Your task to perform on an android device: turn smart compose on in the gmail app Image 0: 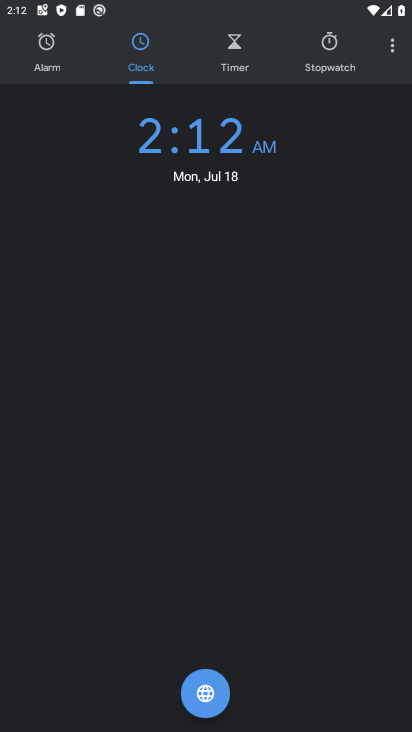
Step 0: press home button
Your task to perform on an android device: turn smart compose on in the gmail app Image 1: 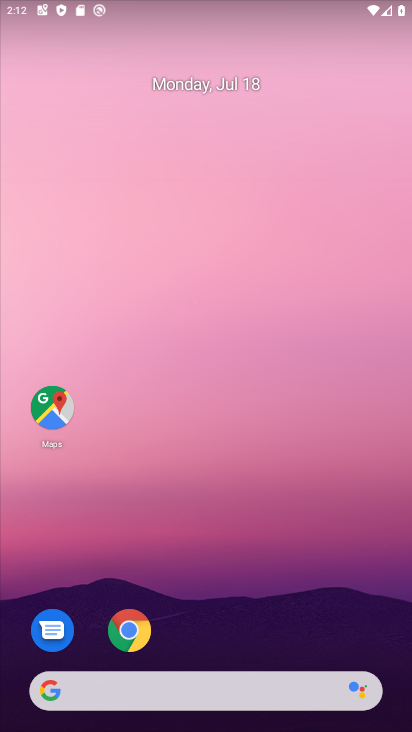
Step 1: drag from (367, 618) to (346, 164)
Your task to perform on an android device: turn smart compose on in the gmail app Image 2: 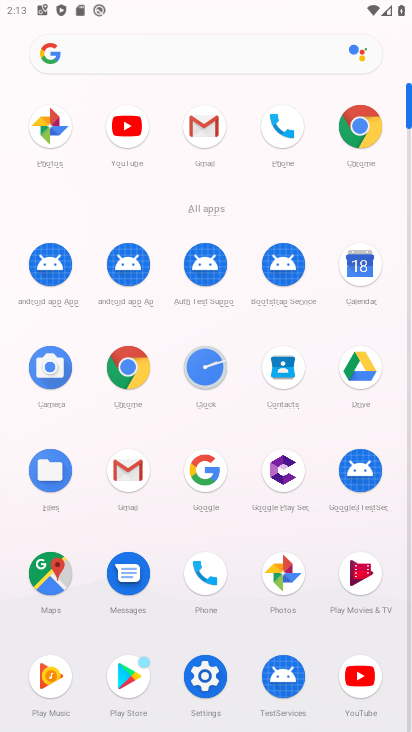
Step 2: click (124, 466)
Your task to perform on an android device: turn smart compose on in the gmail app Image 3: 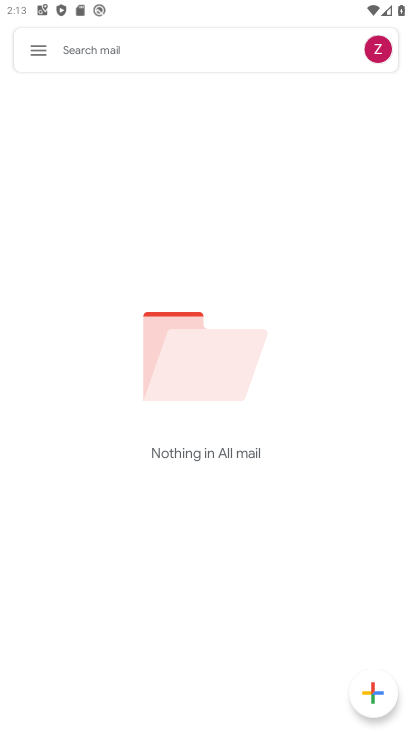
Step 3: click (35, 40)
Your task to perform on an android device: turn smart compose on in the gmail app Image 4: 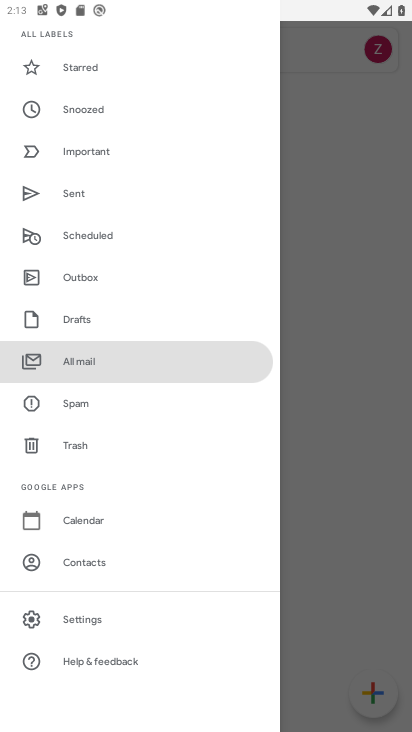
Step 4: click (87, 628)
Your task to perform on an android device: turn smart compose on in the gmail app Image 5: 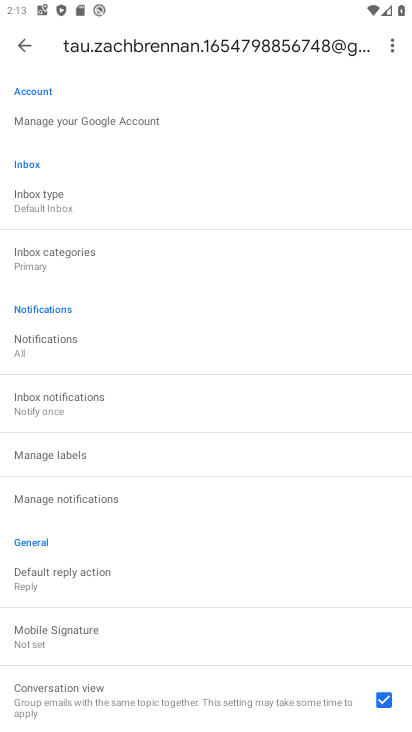
Step 5: task complete